Your task to perform on an android device: turn on notifications settings in the gmail app Image 0: 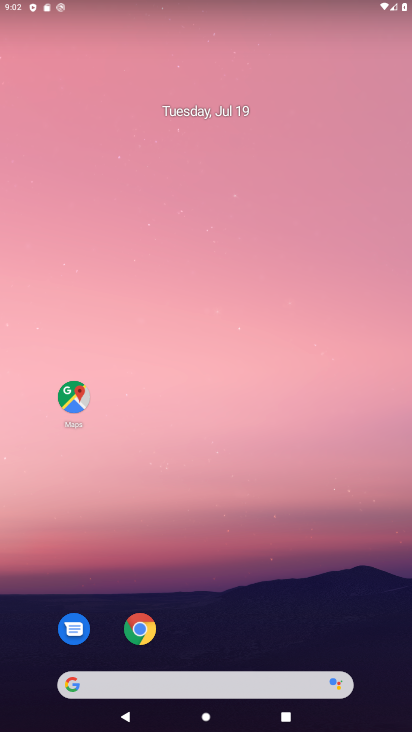
Step 0: press home button
Your task to perform on an android device: turn on notifications settings in the gmail app Image 1: 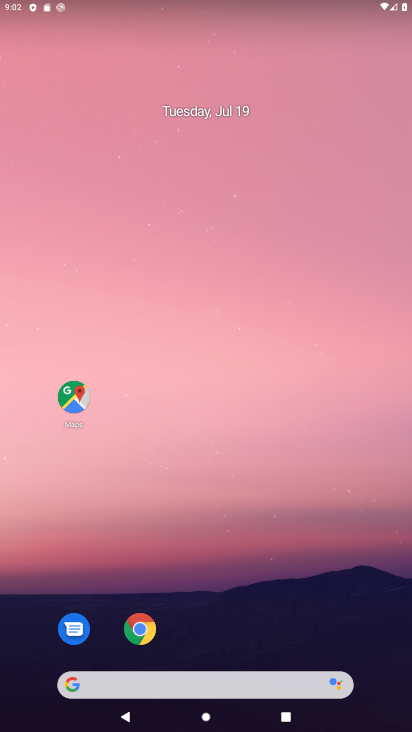
Step 1: drag from (296, 640) to (295, 106)
Your task to perform on an android device: turn on notifications settings in the gmail app Image 2: 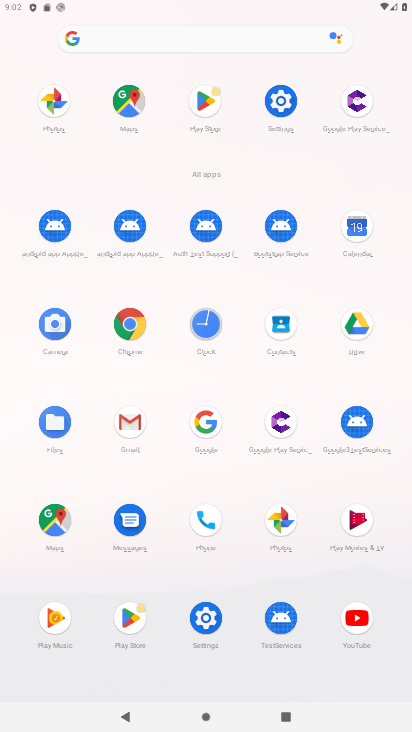
Step 2: click (40, 98)
Your task to perform on an android device: turn on notifications settings in the gmail app Image 3: 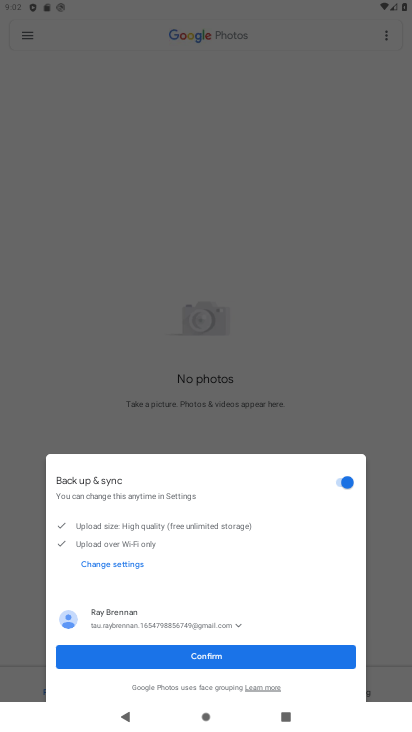
Step 3: click (235, 661)
Your task to perform on an android device: turn on notifications settings in the gmail app Image 4: 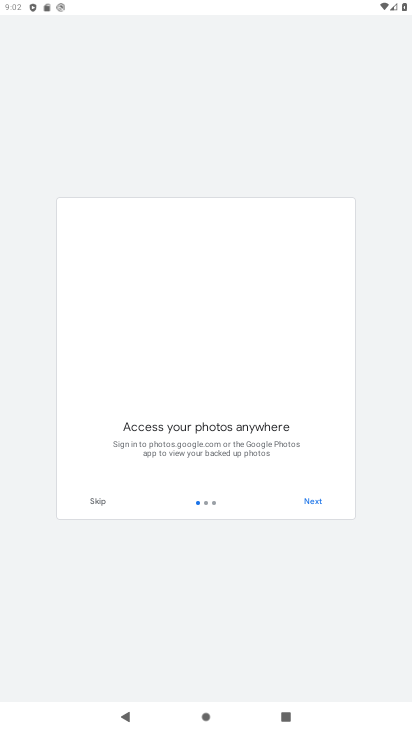
Step 4: click (319, 499)
Your task to perform on an android device: turn on notifications settings in the gmail app Image 5: 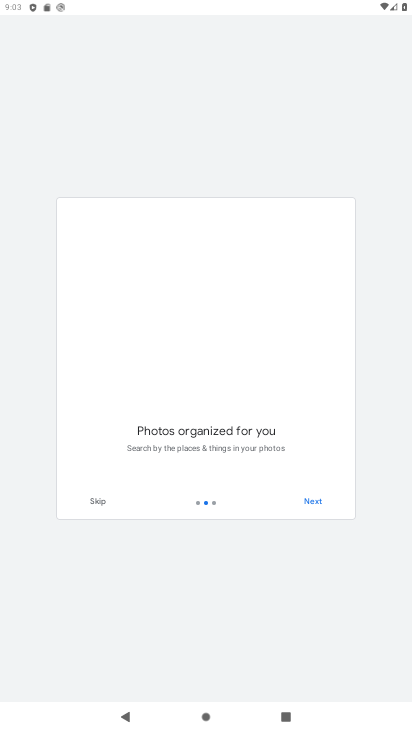
Step 5: click (319, 499)
Your task to perform on an android device: turn on notifications settings in the gmail app Image 6: 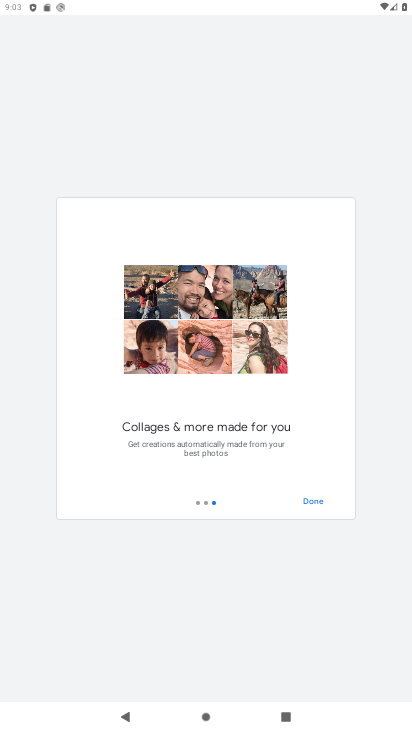
Step 6: click (319, 499)
Your task to perform on an android device: turn on notifications settings in the gmail app Image 7: 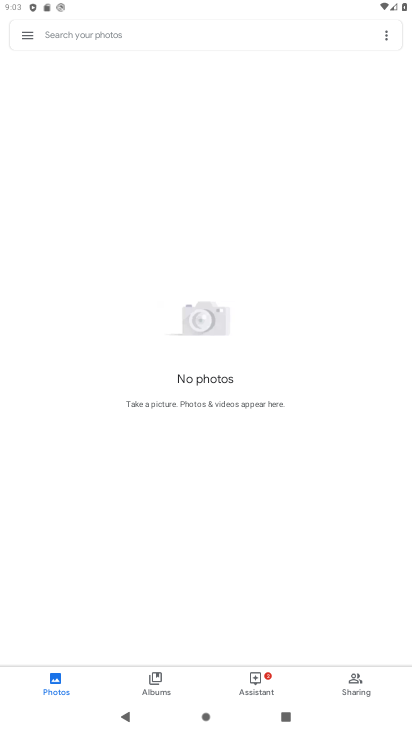
Step 7: press home button
Your task to perform on an android device: turn on notifications settings in the gmail app Image 8: 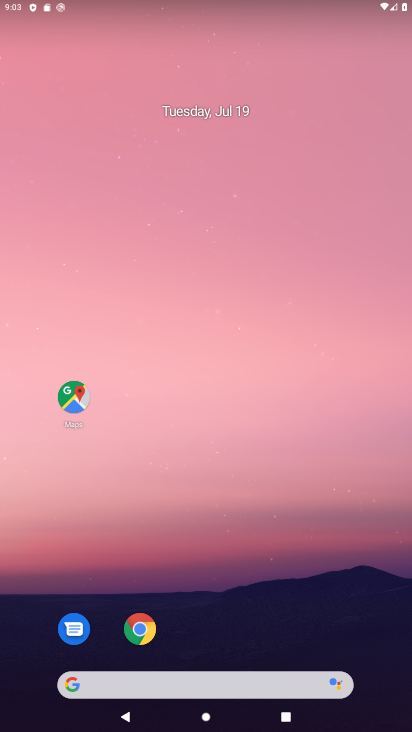
Step 8: drag from (304, 605) to (283, 128)
Your task to perform on an android device: turn on notifications settings in the gmail app Image 9: 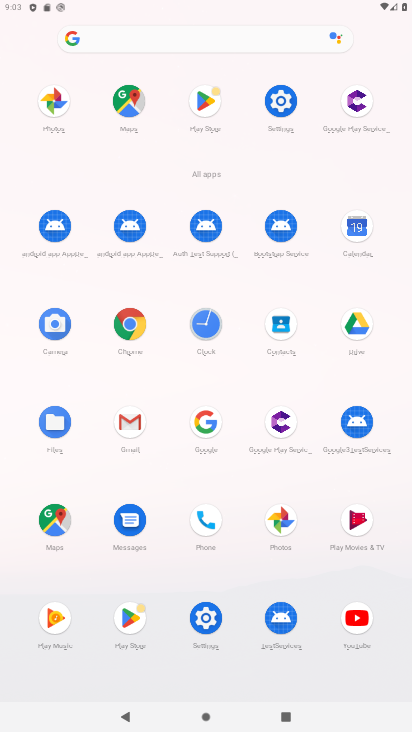
Step 9: click (128, 417)
Your task to perform on an android device: turn on notifications settings in the gmail app Image 10: 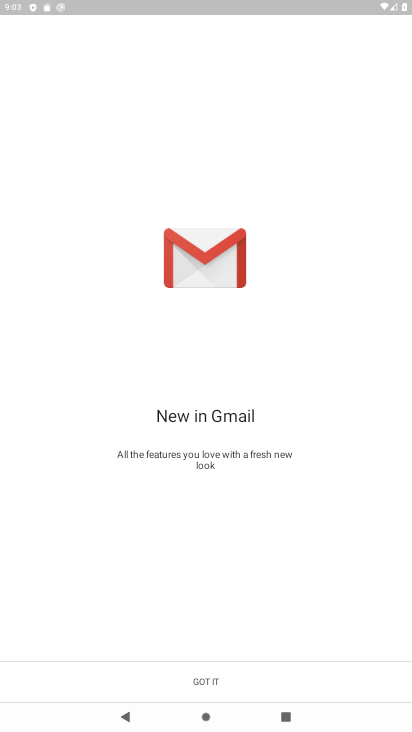
Step 10: click (204, 679)
Your task to perform on an android device: turn on notifications settings in the gmail app Image 11: 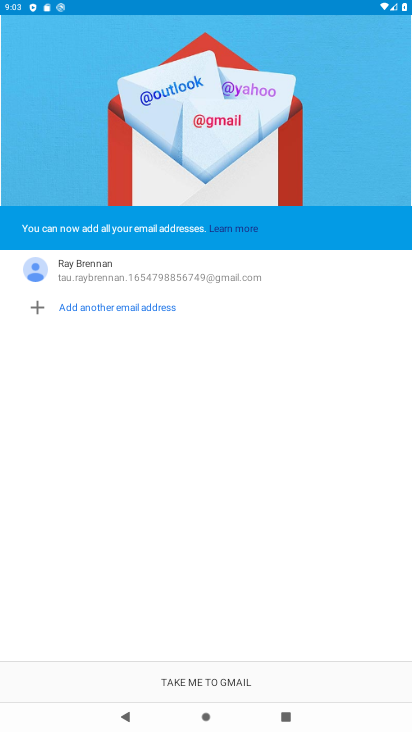
Step 11: click (202, 683)
Your task to perform on an android device: turn on notifications settings in the gmail app Image 12: 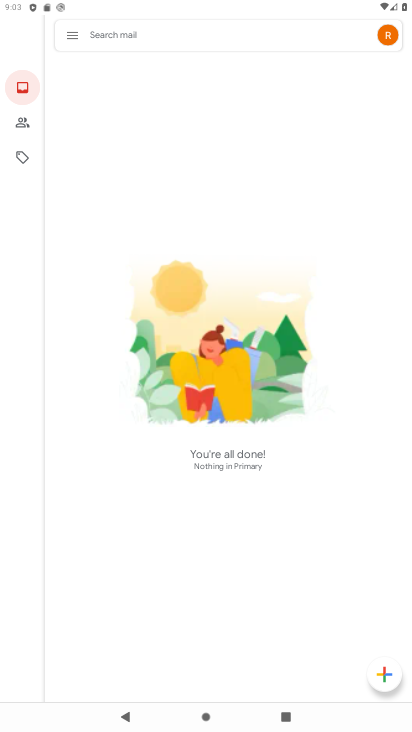
Step 12: click (75, 30)
Your task to perform on an android device: turn on notifications settings in the gmail app Image 13: 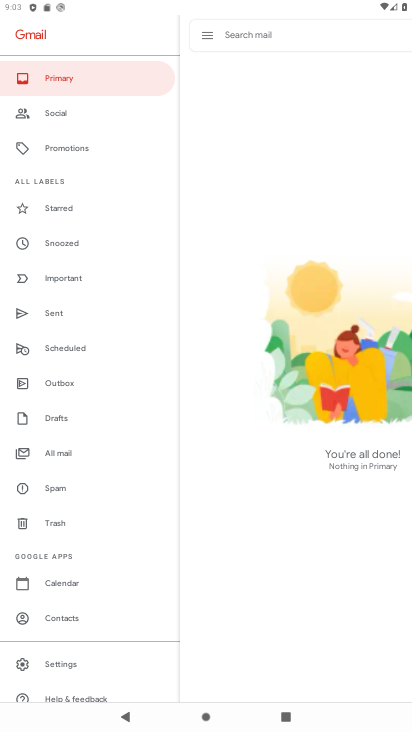
Step 13: click (72, 659)
Your task to perform on an android device: turn on notifications settings in the gmail app Image 14: 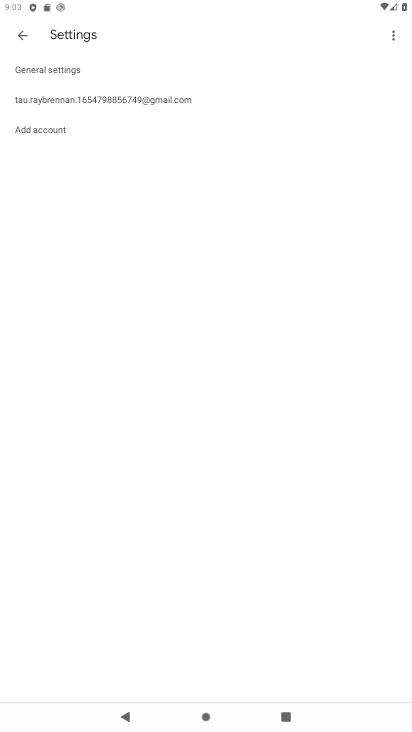
Step 14: click (90, 97)
Your task to perform on an android device: turn on notifications settings in the gmail app Image 15: 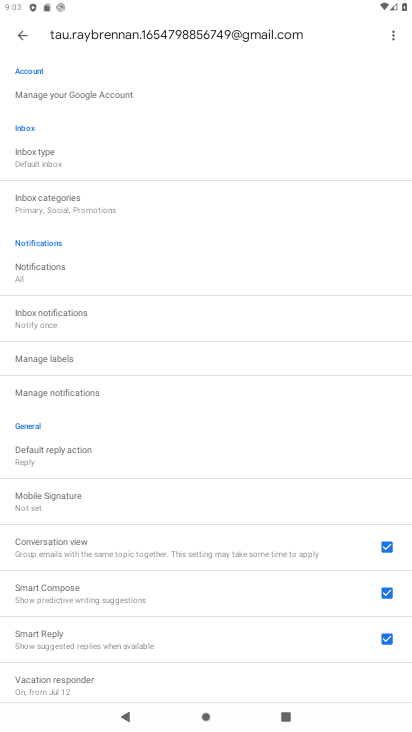
Step 15: click (64, 394)
Your task to perform on an android device: turn on notifications settings in the gmail app Image 16: 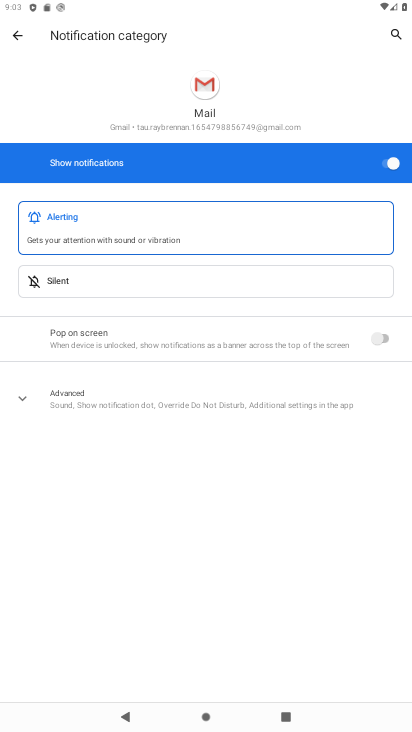
Step 16: task complete